Your task to perform on an android device: see sites visited before in the chrome app Image 0: 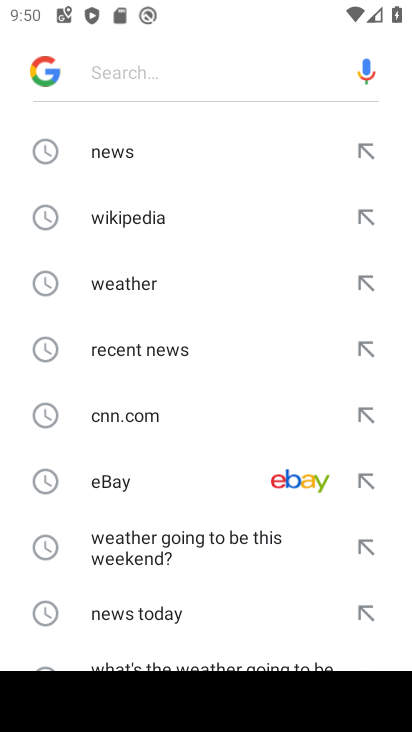
Step 0: press home button
Your task to perform on an android device: see sites visited before in the chrome app Image 1: 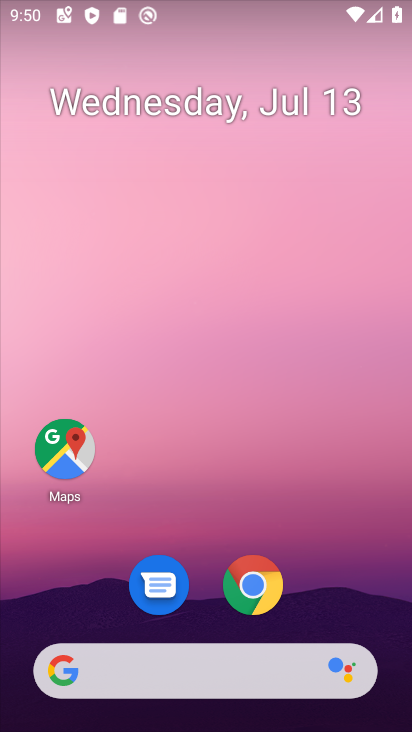
Step 1: click (263, 580)
Your task to perform on an android device: see sites visited before in the chrome app Image 2: 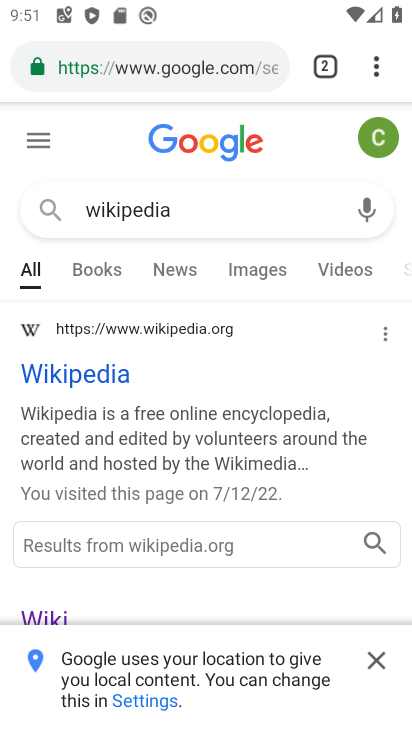
Step 2: click (374, 65)
Your task to perform on an android device: see sites visited before in the chrome app Image 3: 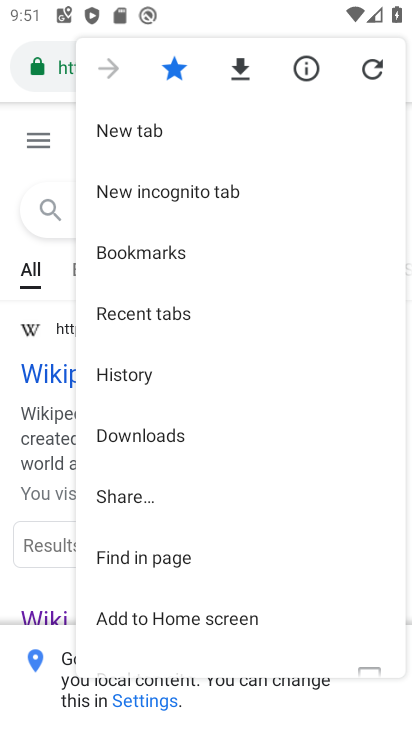
Step 3: click (169, 312)
Your task to perform on an android device: see sites visited before in the chrome app Image 4: 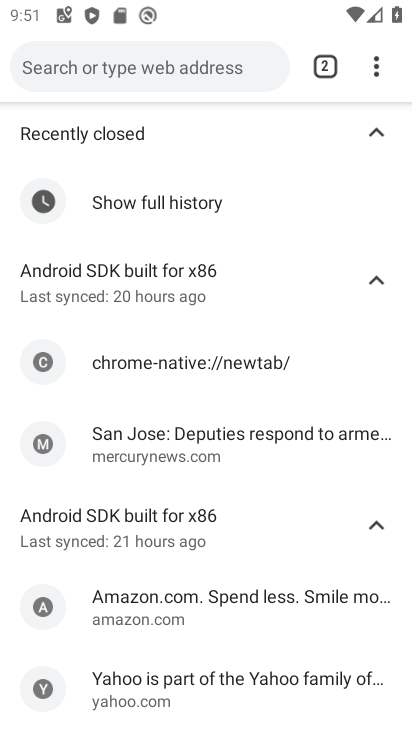
Step 4: task complete